Your task to perform on an android device: Open location settings Image 0: 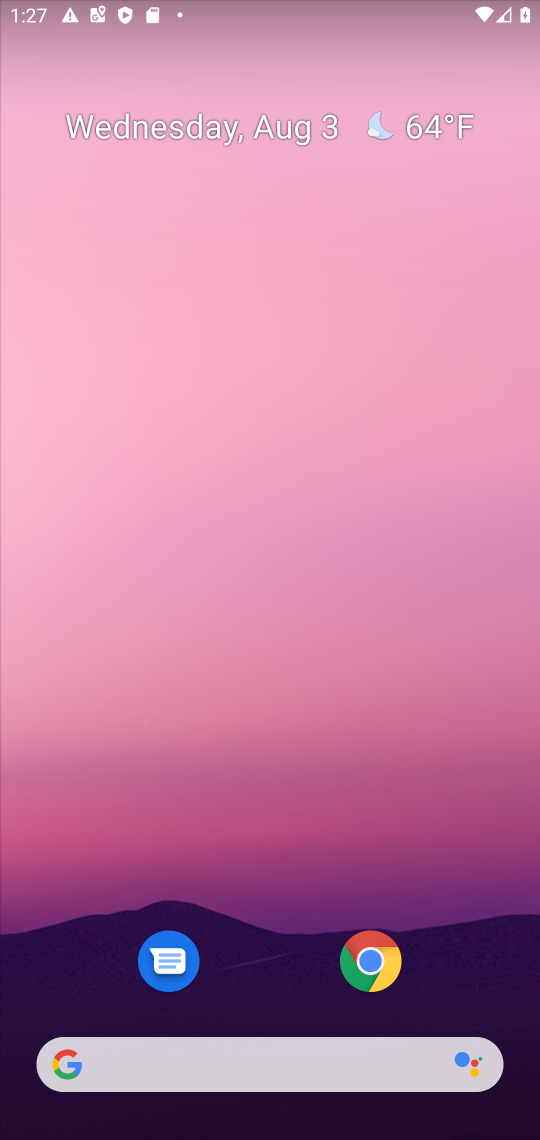
Step 0: drag from (244, 962) to (253, 45)
Your task to perform on an android device: Open location settings Image 1: 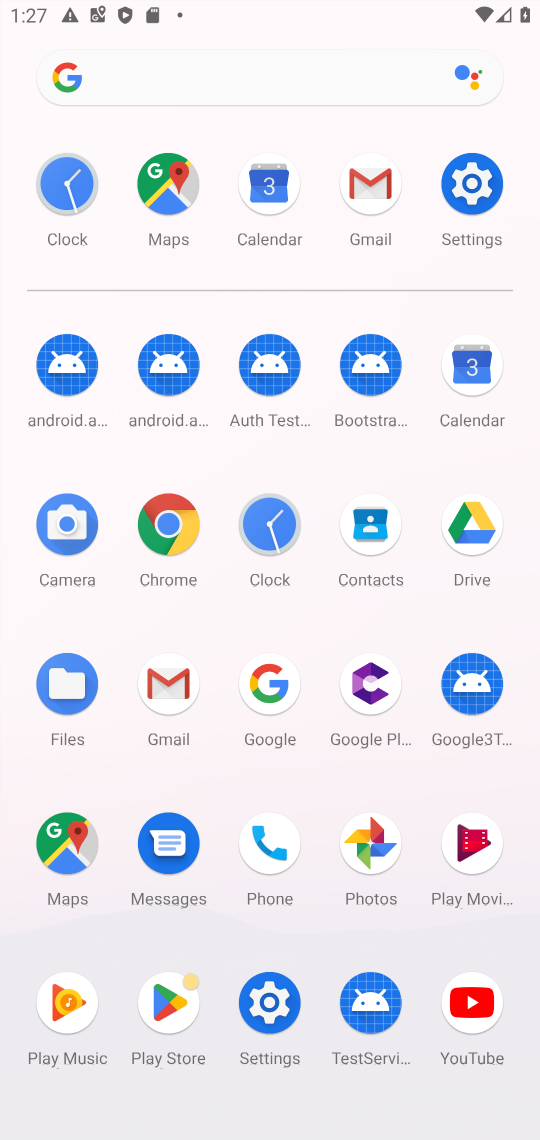
Step 1: click (475, 192)
Your task to perform on an android device: Open location settings Image 2: 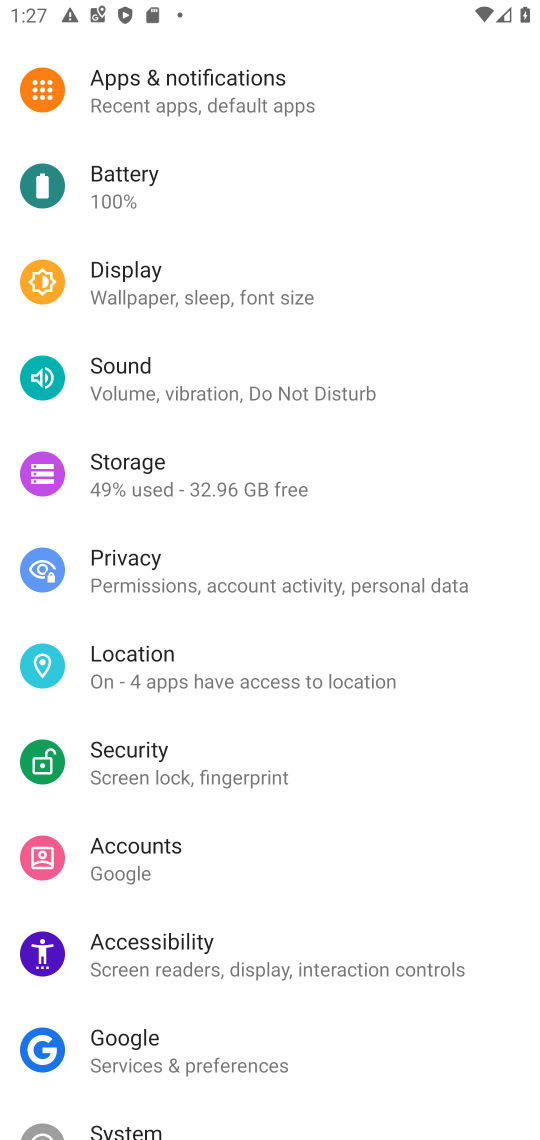
Step 2: click (169, 679)
Your task to perform on an android device: Open location settings Image 3: 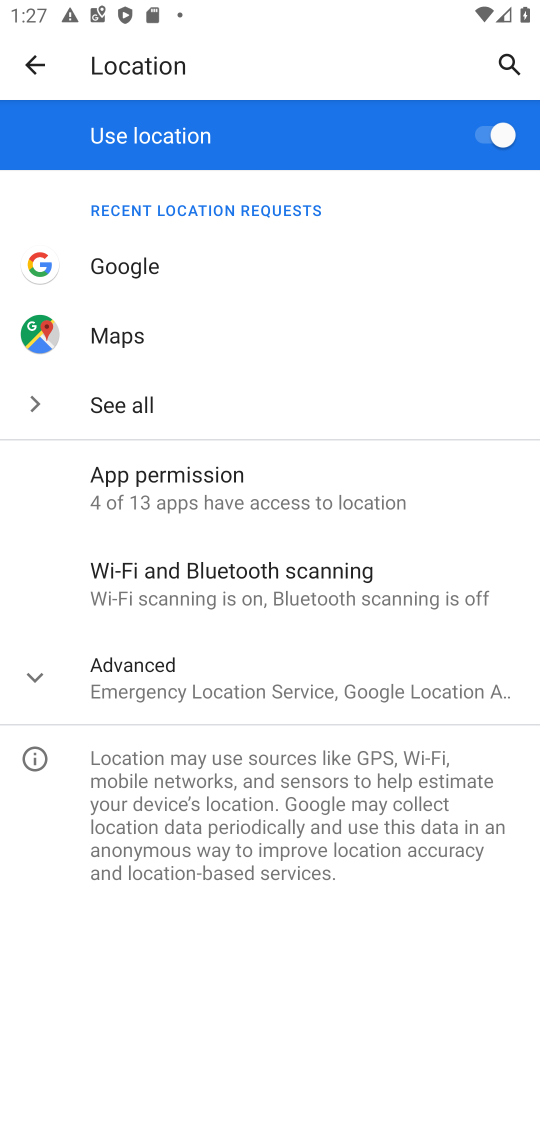
Step 3: task complete